Your task to perform on an android device: delete a single message in the gmail app Image 0: 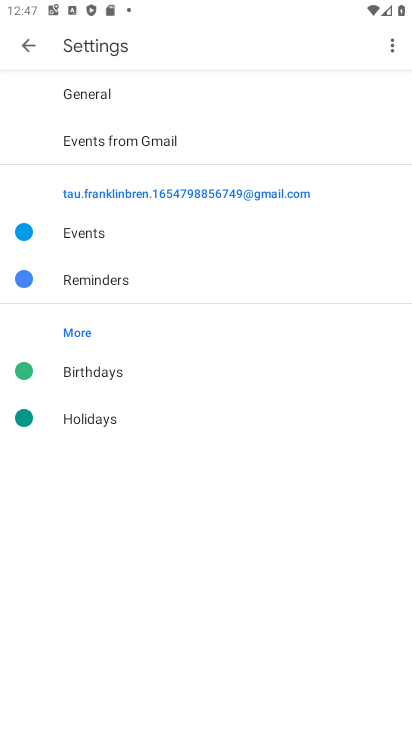
Step 0: press home button
Your task to perform on an android device: delete a single message in the gmail app Image 1: 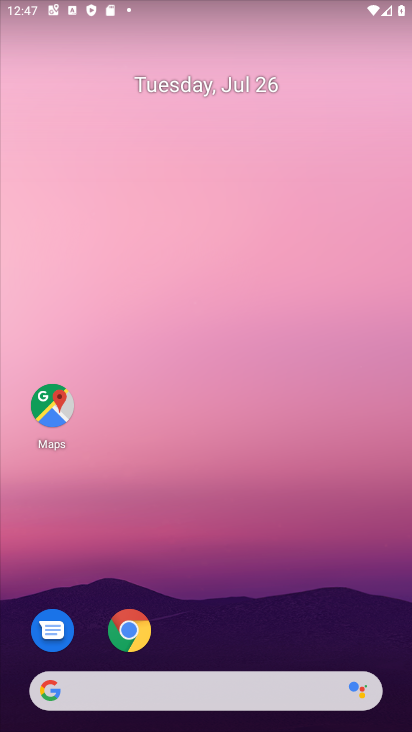
Step 1: drag from (371, 637) to (319, 168)
Your task to perform on an android device: delete a single message in the gmail app Image 2: 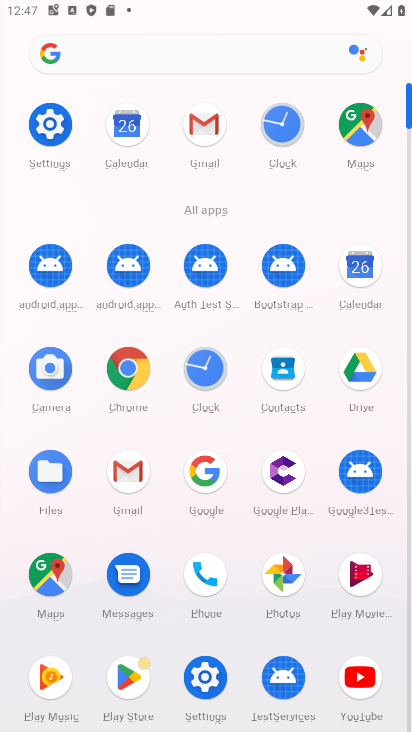
Step 2: click (127, 471)
Your task to perform on an android device: delete a single message in the gmail app Image 3: 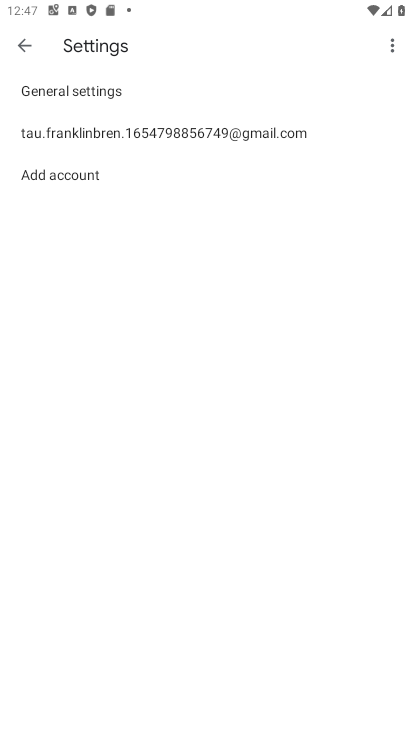
Step 3: press back button
Your task to perform on an android device: delete a single message in the gmail app Image 4: 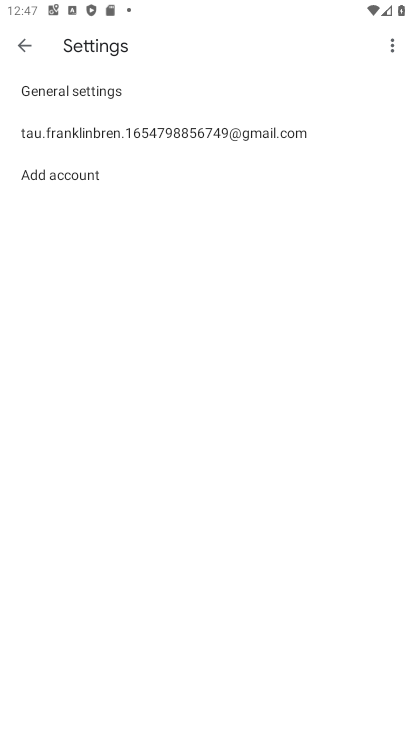
Step 4: press back button
Your task to perform on an android device: delete a single message in the gmail app Image 5: 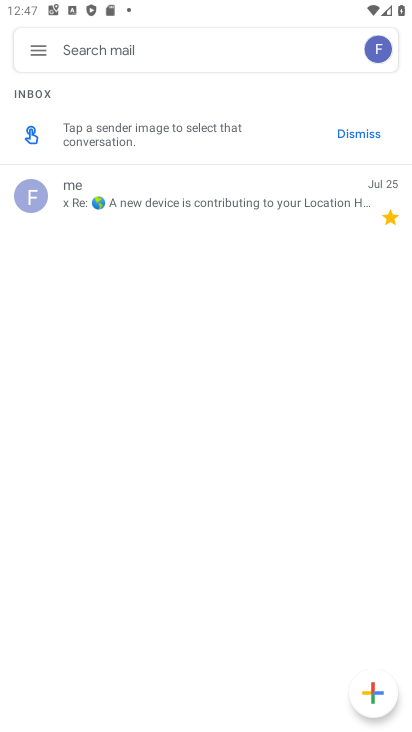
Step 5: click (205, 196)
Your task to perform on an android device: delete a single message in the gmail app Image 6: 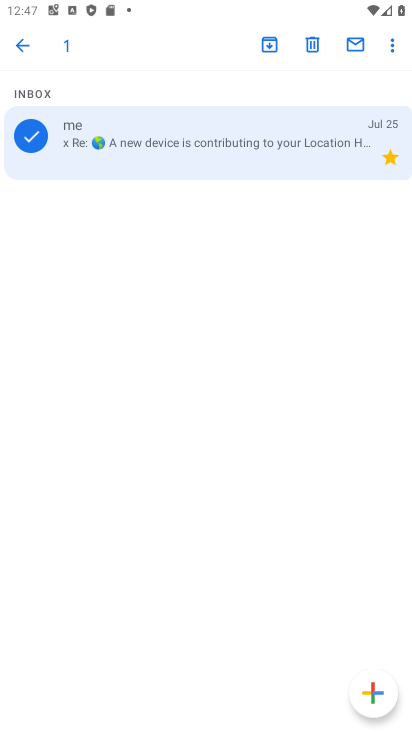
Step 6: click (308, 43)
Your task to perform on an android device: delete a single message in the gmail app Image 7: 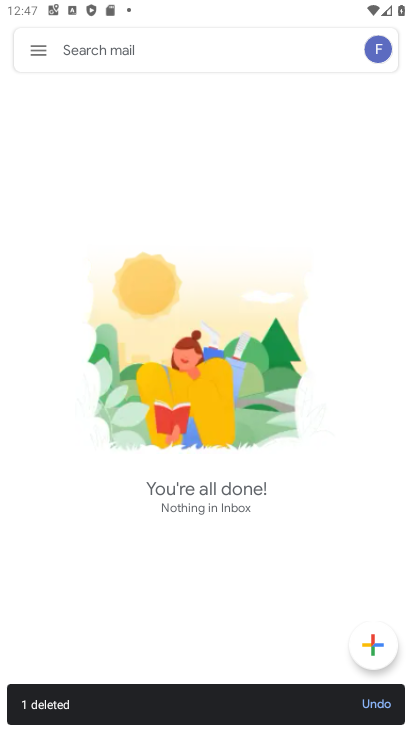
Step 7: task complete